Your task to perform on an android device: change alarm snooze length Image 0: 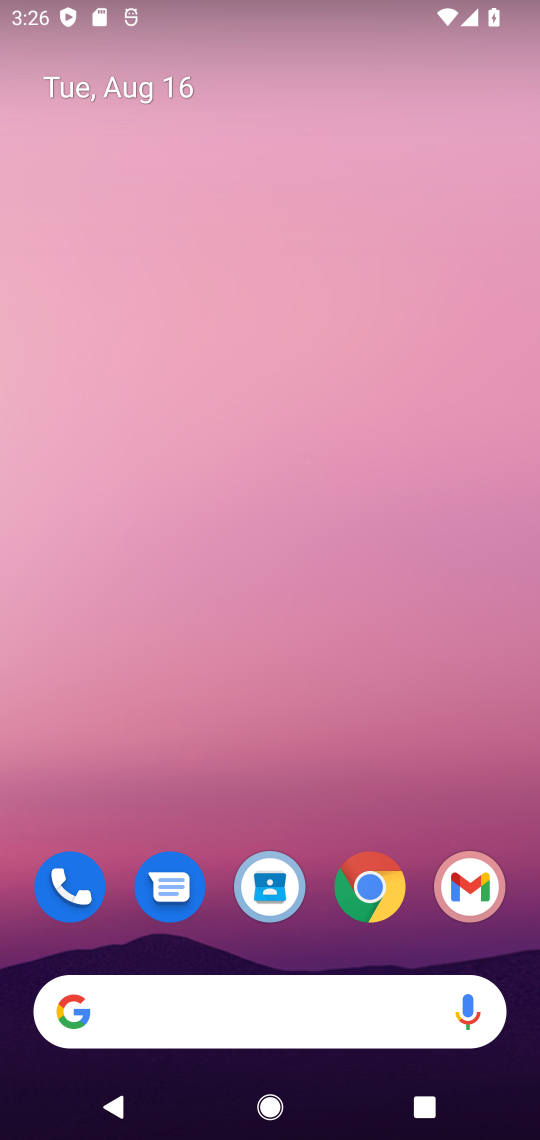
Step 0: drag from (309, 686) to (295, 28)
Your task to perform on an android device: change alarm snooze length Image 1: 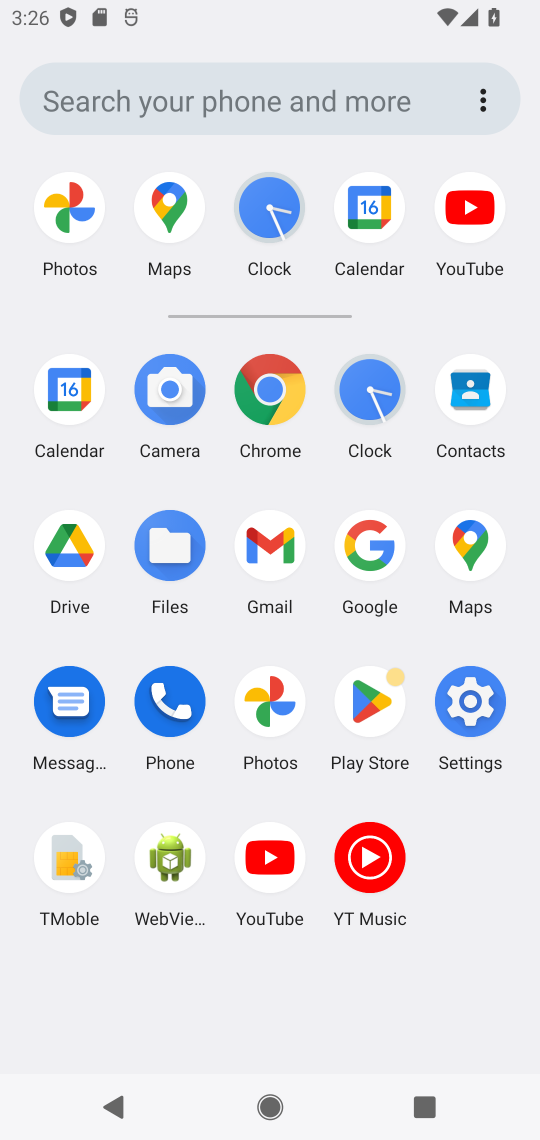
Step 1: click (367, 395)
Your task to perform on an android device: change alarm snooze length Image 2: 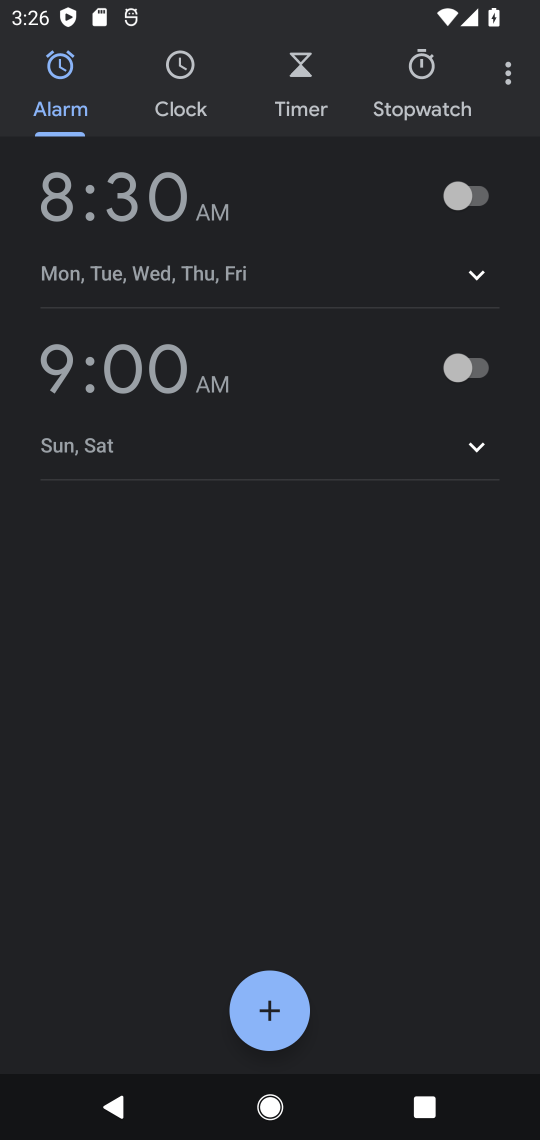
Step 2: click (514, 74)
Your task to perform on an android device: change alarm snooze length Image 3: 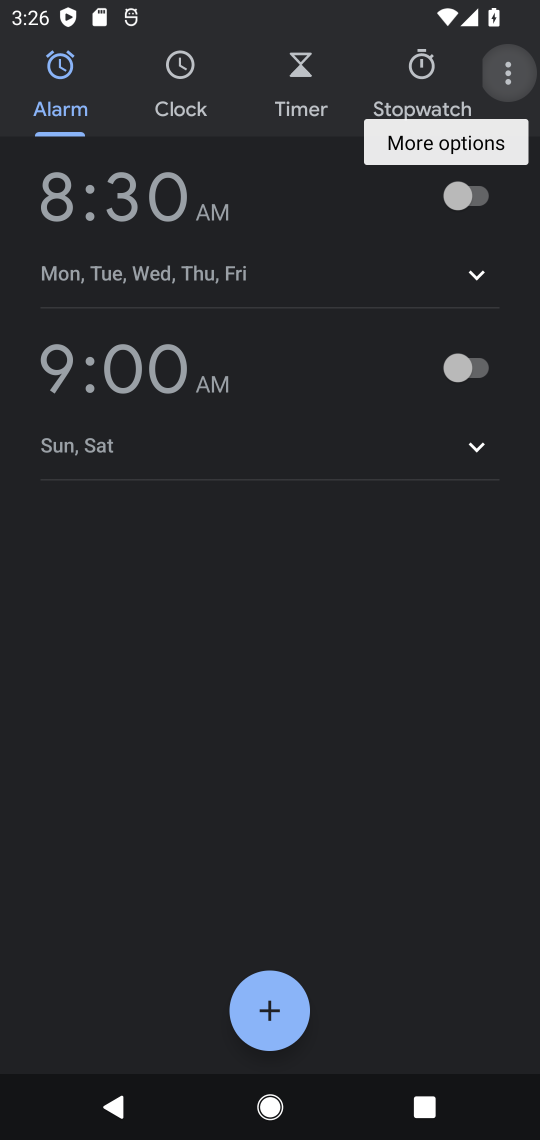
Step 3: click (514, 74)
Your task to perform on an android device: change alarm snooze length Image 4: 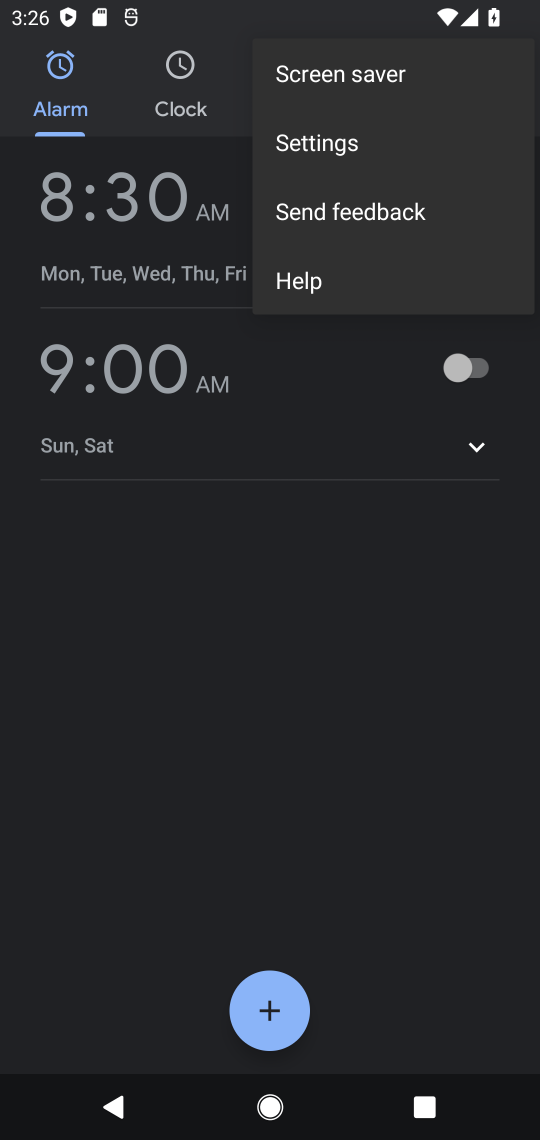
Step 4: click (345, 150)
Your task to perform on an android device: change alarm snooze length Image 5: 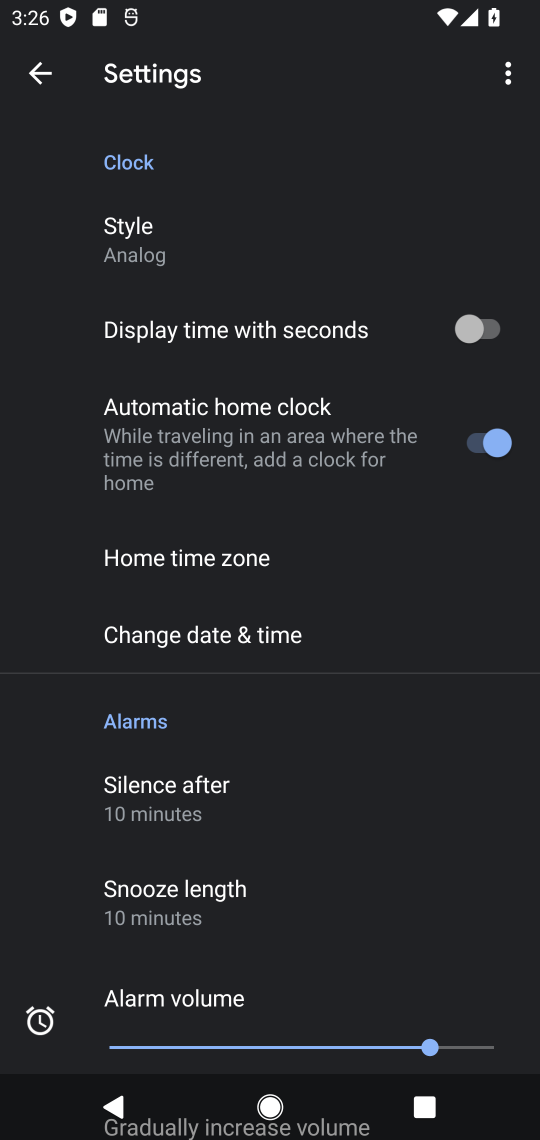
Step 5: click (215, 891)
Your task to perform on an android device: change alarm snooze length Image 6: 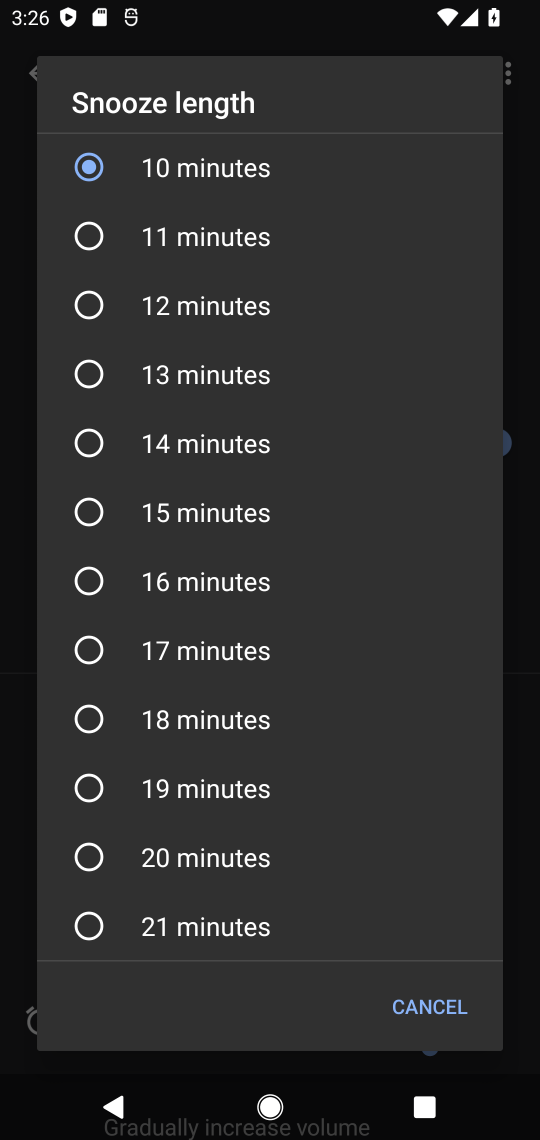
Step 6: click (214, 234)
Your task to perform on an android device: change alarm snooze length Image 7: 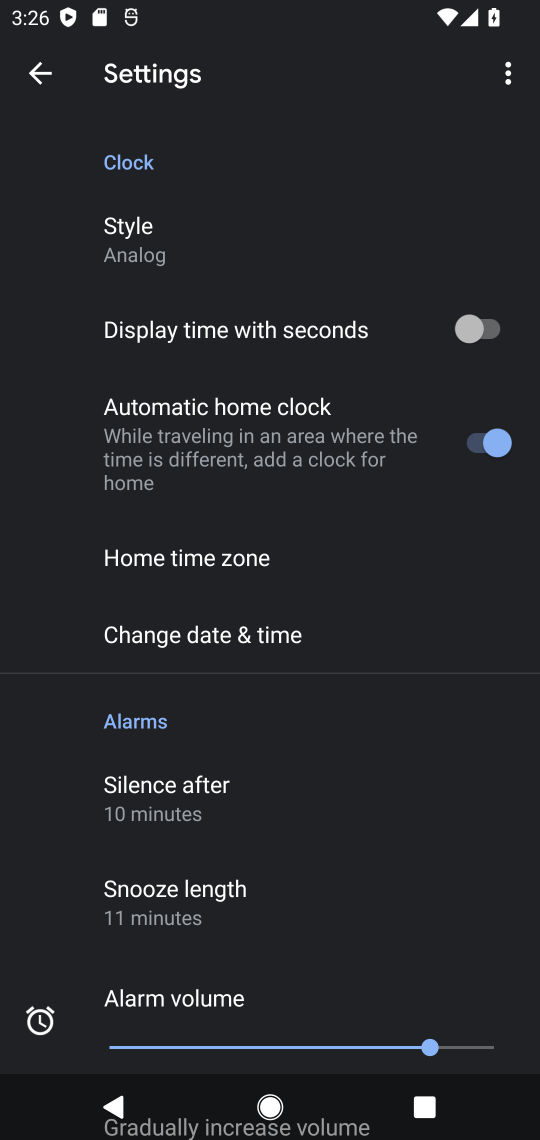
Step 7: task complete